Your task to perform on an android device: turn pop-ups on in chrome Image 0: 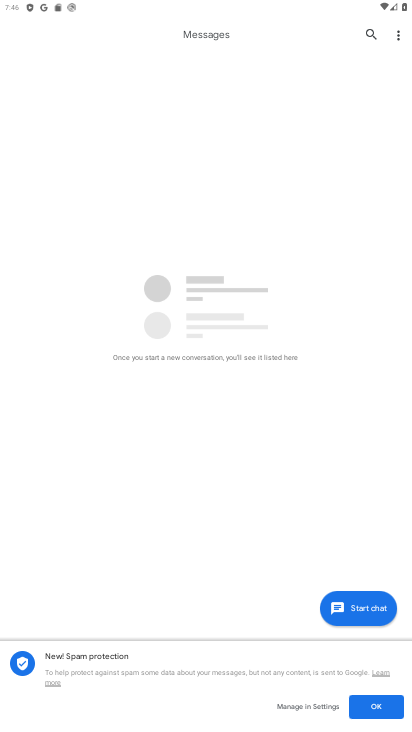
Step 0: press home button
Your task to perform on an android device: turn pop-ups on in chrome Image 1: 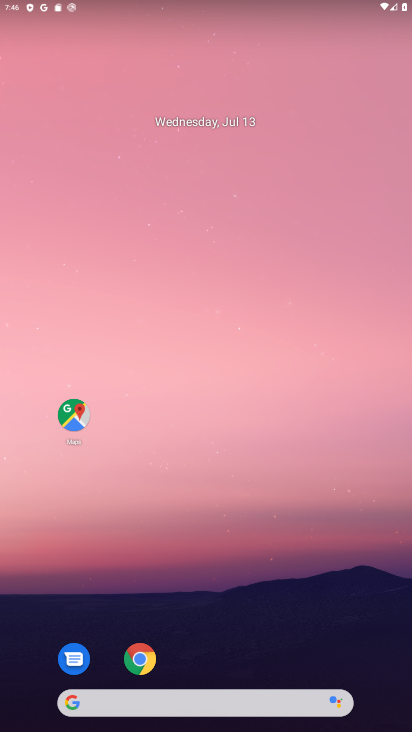
Step 1: click (147, 671)
Your task to perform on an android device: turn pop-ups on in chrome Image 2: 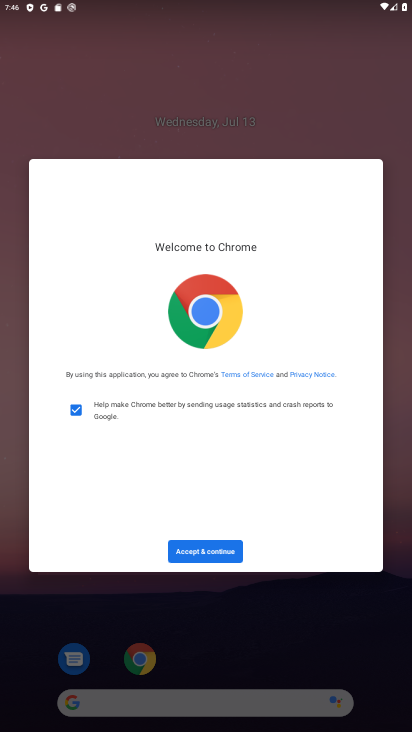
Step 2: click (176, 554)
Your task to perform on an android device: turn pop-ups on in chrome Image 3: 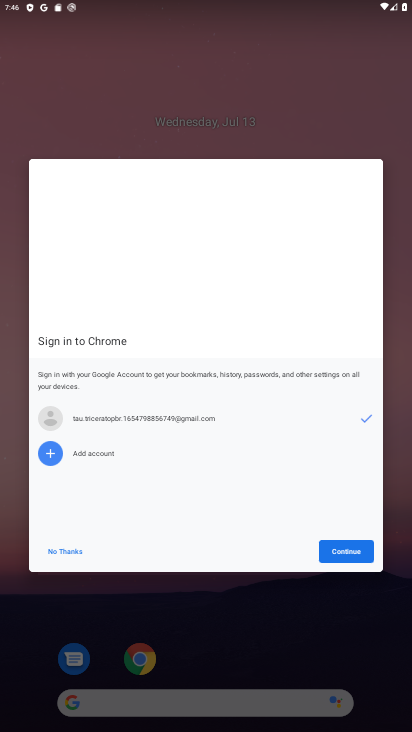
Step 3: click (321, 555)
Your task to perform on an android device: turn pop-ups on in chrome Image 4: 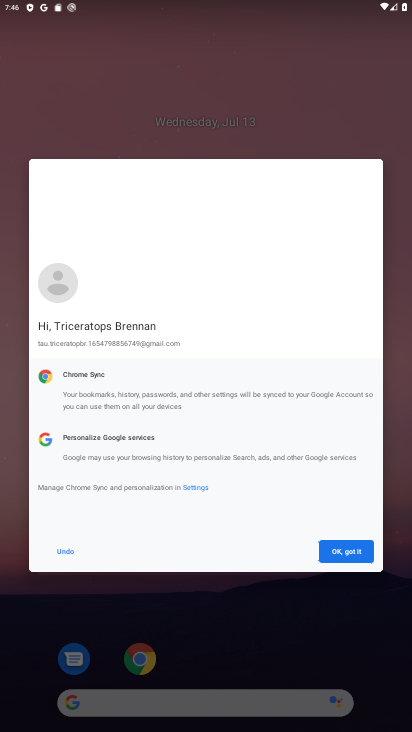
Step 4: click (339, 556)
Your task to perform on an android device: turn pop-ups on in chrome Image 5: 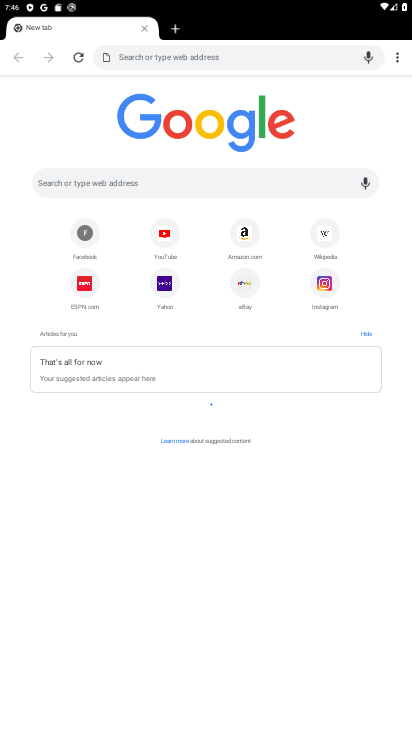
Step 5: click (394, 62)
Your task to perform on an android device: turn pop-ups on in chrome Image 6: 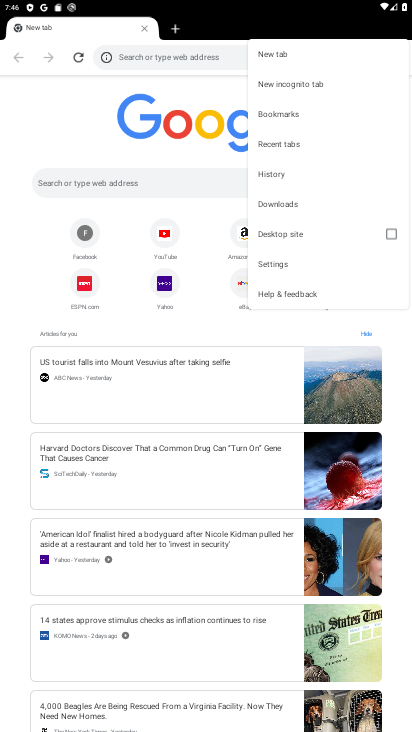
Step 6: click (274, 268)
Your task to perform on an android device: turn pop-ups on in chrome Image 7: 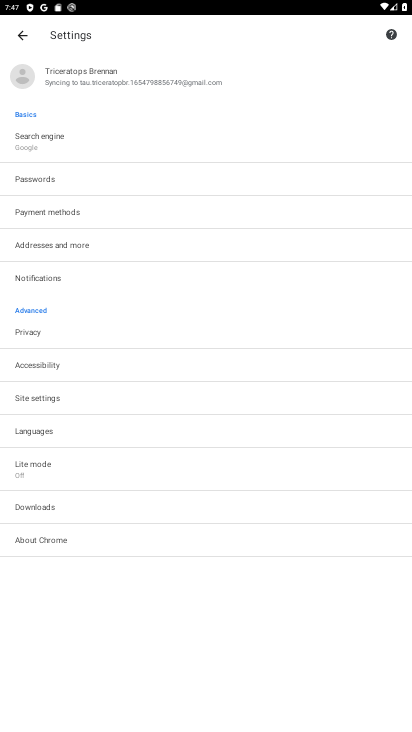
Step 7: click (135, 401)
Your task to perform on an android device: turn pop-ups on in chrome Image 8: 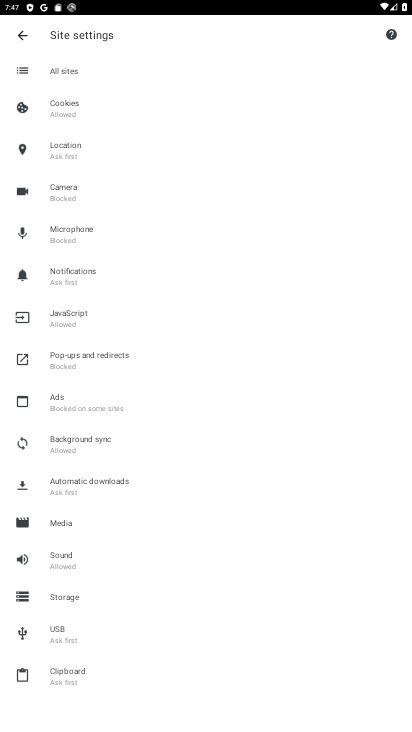
Step 8: click (167, 360)
Your task to perform on an android device: turn pop-ups on in chrome Image 9: 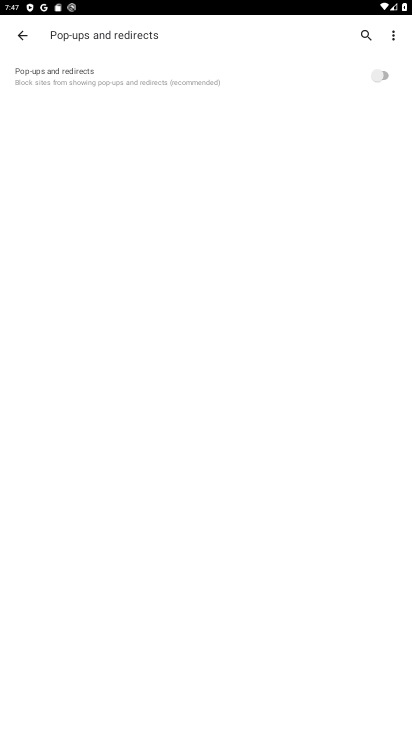
Step 9: click (383, 76)
Your task to perform on an android device: turn pop-ups on in chrome Image 10: 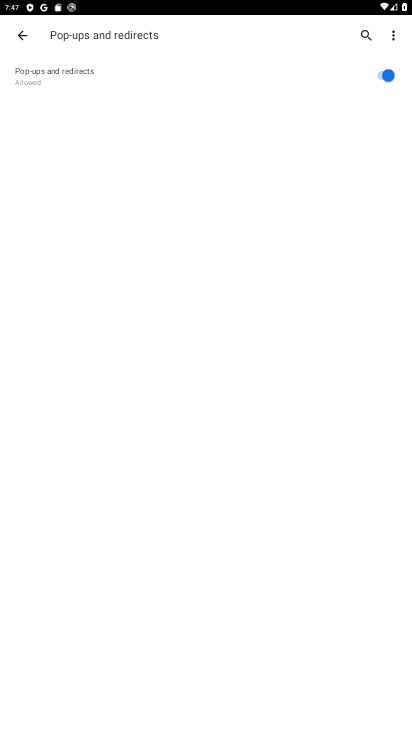
Step 10: task complete